Your task to perform on an android device: make emails show in primary in the gmail app Image 0: 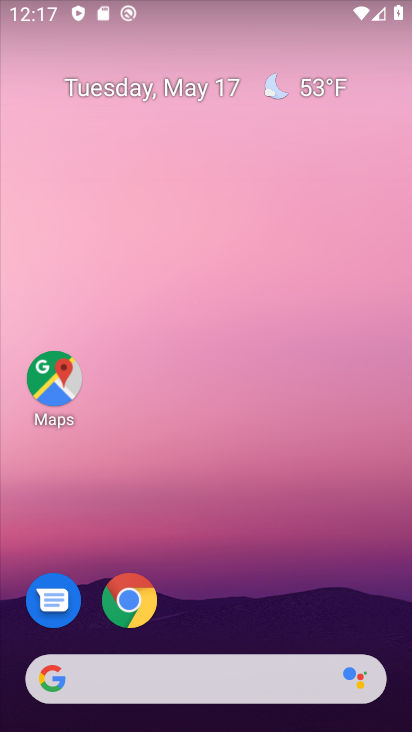
Step 0: drag from (215, 629) to (169, 184)
Your task to perform on an android device: make emails show in primary in the gmail app Image 1: 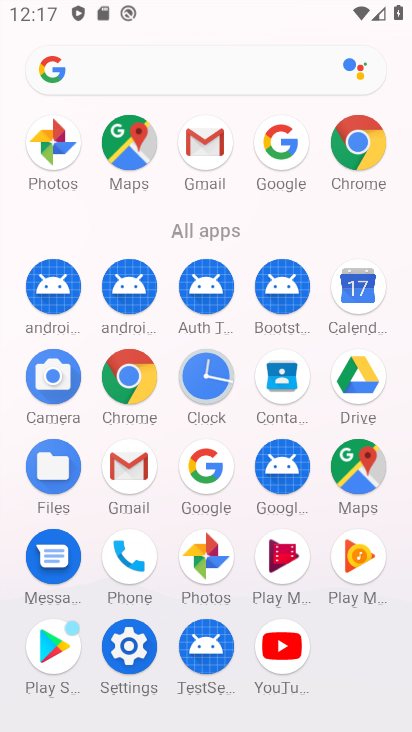
Step 1: drag from (163, 413) to (171, 109)
Your task to perform on an android device: make emails show in primary in the gmail app Image 2: 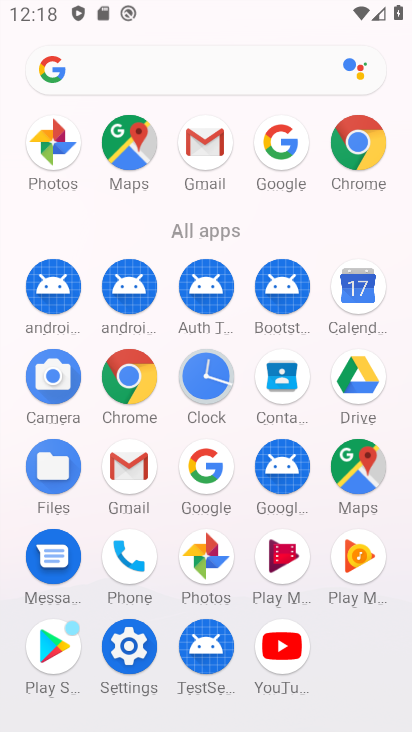
Step 2: click (213, 149)
Your task to perform on an android device: make emails show in primary in the gmail app Image 3: 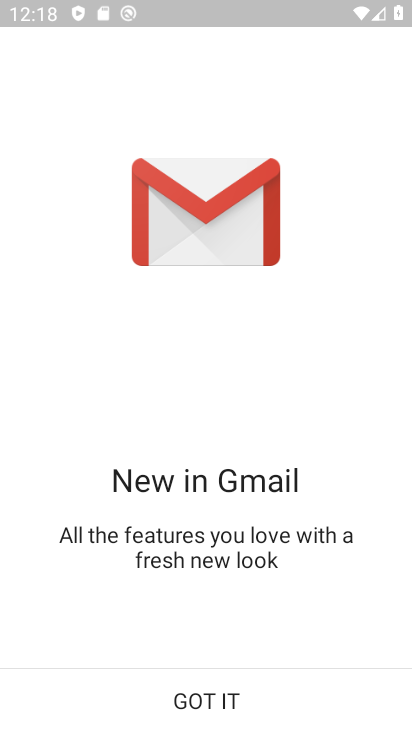
Step 3: click (174, 702)
Your task to perform on an android device: make emails show in primary in the gmail app Image 4: 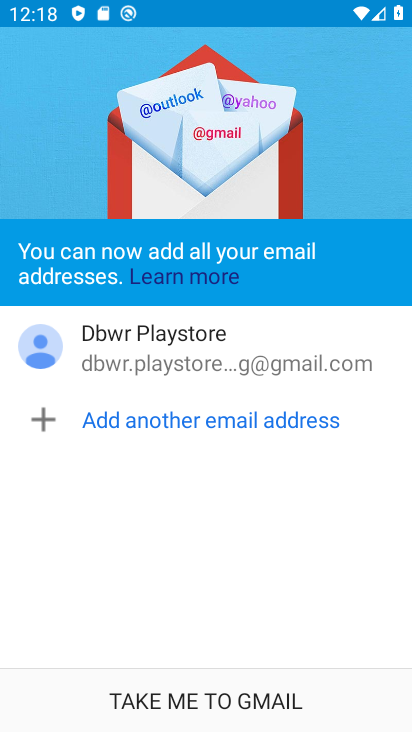
Step 4: click (197, 711)
Your task to perform on an android device: make emails show in primary in the gmail app Image 5: 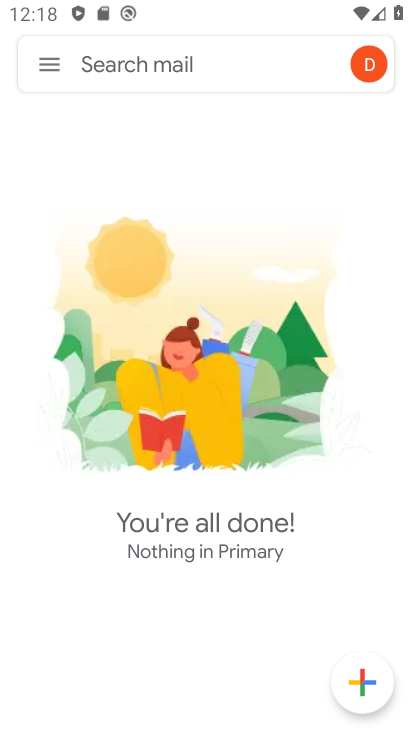
Step 5: click (46, 61)
Your task to perform on an android device: make emails show in primary in the gmail app Image 6: 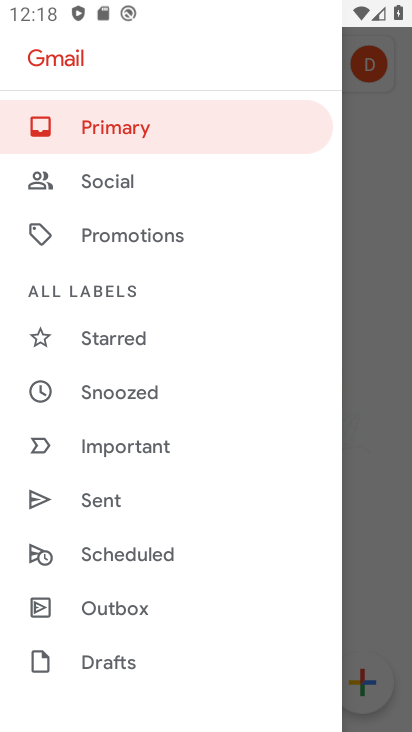
Step 6: drag from (125, 660) to (159, 219)
Your task to perform on an android device: make emails show in primary in the gmail app Image 7: 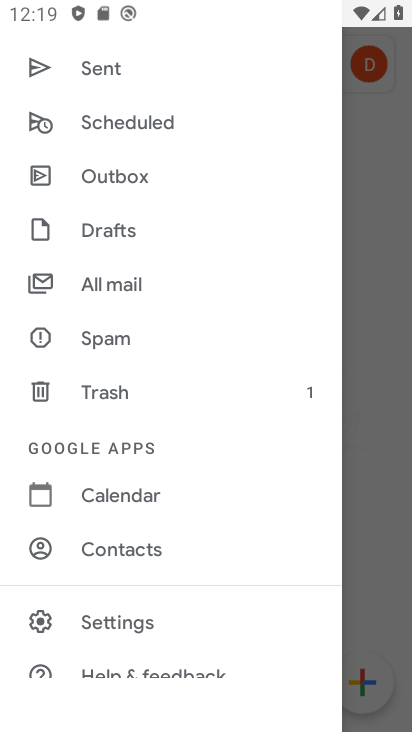
Step 7: click (115, 631)
Your task to perform on an android device: make emails show in primary in the gmail app Image 8: 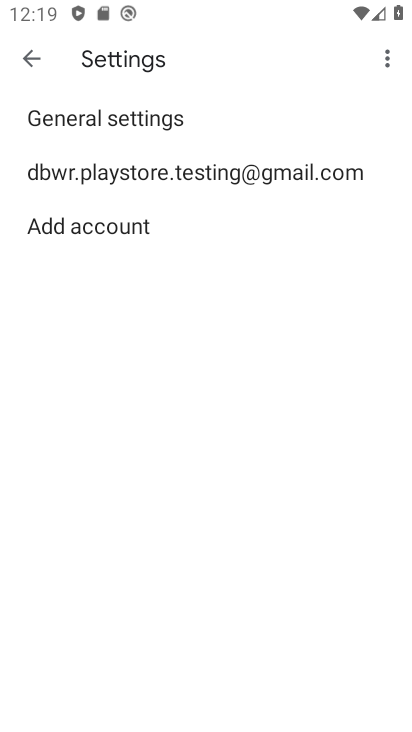
Step 8: click (101, 188)
Your task to perform on an android device: make emails show in primary in the gmail app Image 9: 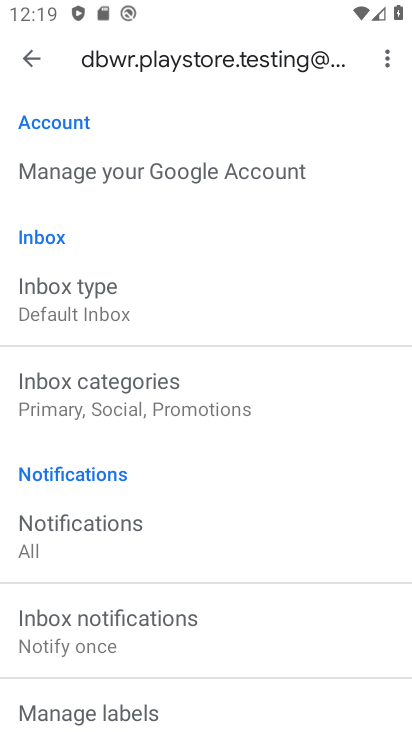
Step 9: click (101, 388)
Your task to perform on an android device: make emails show in primary in the gmail app Image 10: 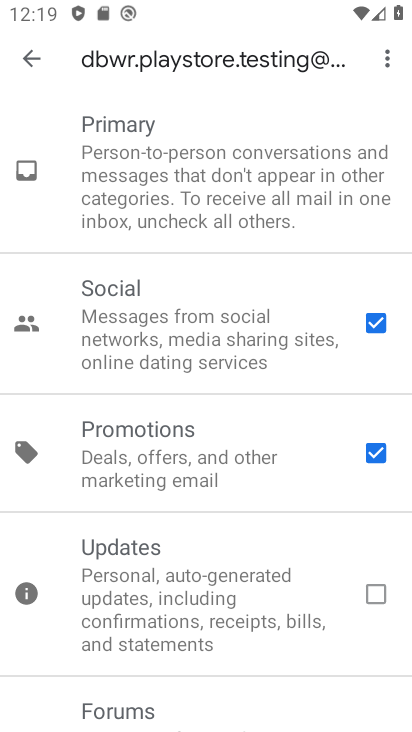
Step 10: click (385, 463)
Your task to perform on an android device: make emails show in primary in the gmail app Image 11: 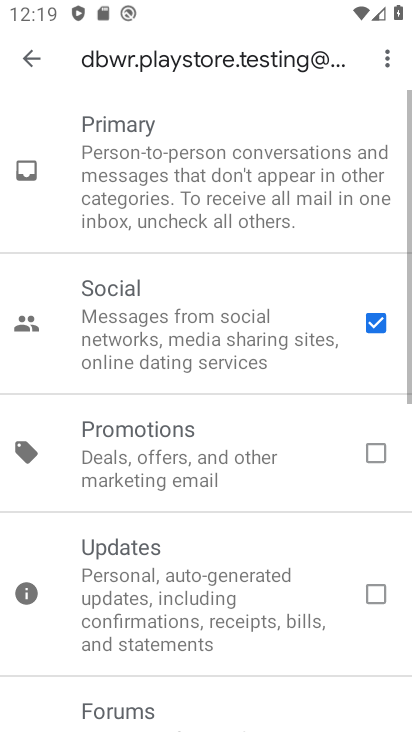
Step 11: click (371, 328)
Your task to perform on an android device: make emails show in primary in the gmail app Image 12: 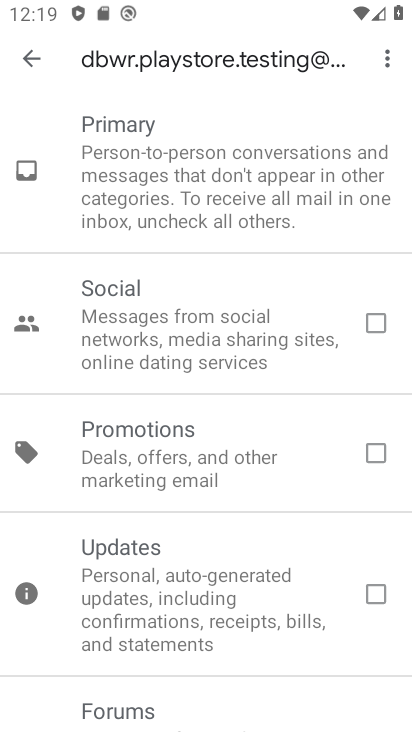
Step 12: task complete